Your task to perform on an android device: change the clock display to analog Image 0: 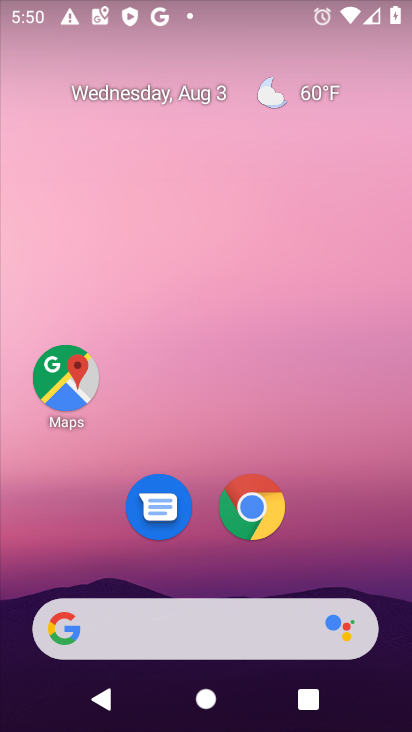
Step 0: drag from (337, 499) to (343, 41)
Your task to perform on an android device: change the clock display to analog Image 1: 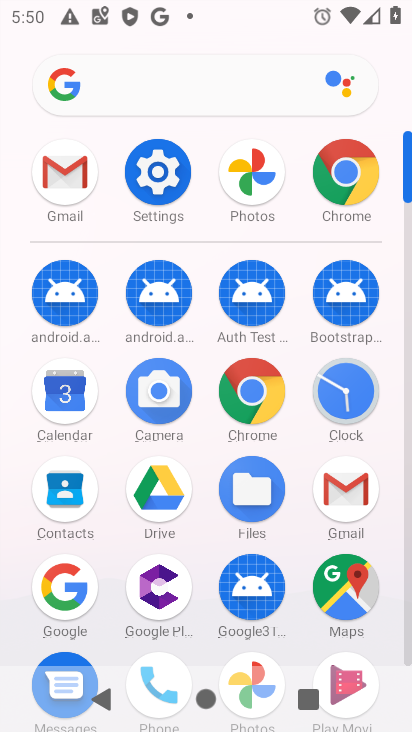
Step 1: click (351, 380)
Your task to perform on an android device: change the clock display to analog Image 2: 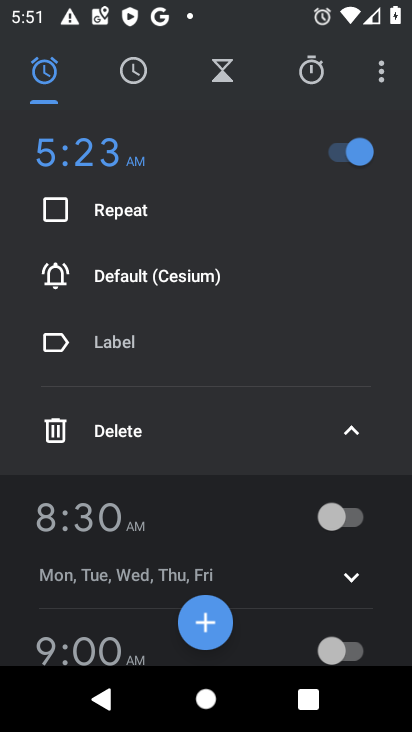
Step 2: click (388, 75)
Your task to perform on an android device: change the clock display to analog Image 3: 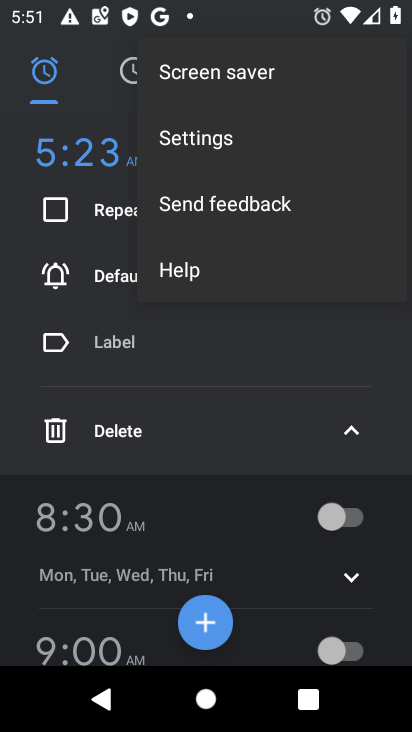
Step 3: click (221, 152)
Your task to perform on an android device: change the clock display to analog Image 4: 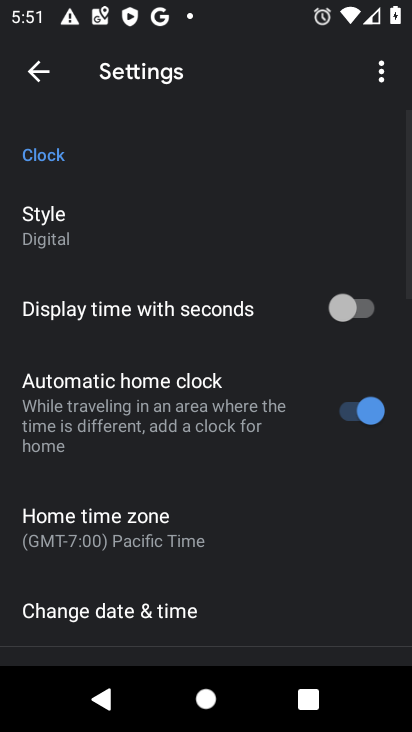
Step 4: click (74, 234)
Your task to perform on an android device: change the clock display to analog Image 5: 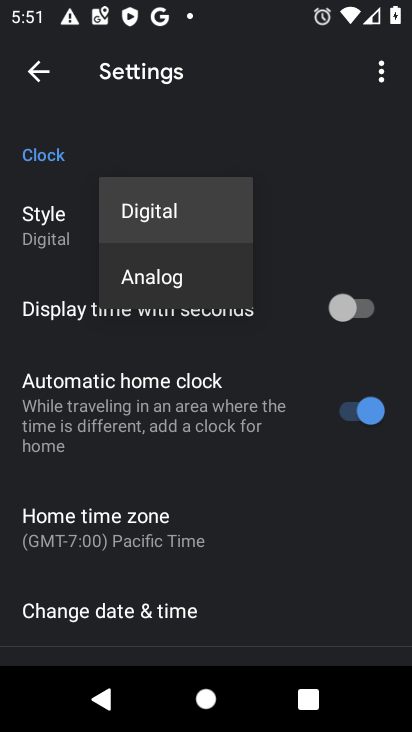
Step 5: click (173, 279)
Your task to perform on an android device: change the clock display to analog Image 6: 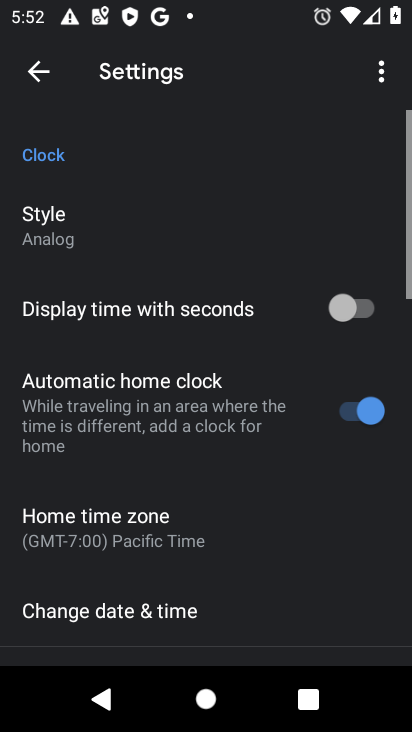
Step 6: task complete